Your task to perform on an android device: check google app version Image 0: 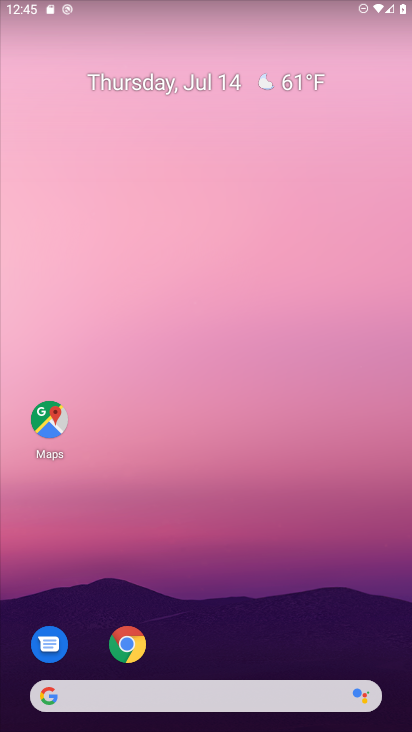
Step 0: drag from (292, 591) to (263, 80)
Your task to perform on an android device: check google app version Image 1: 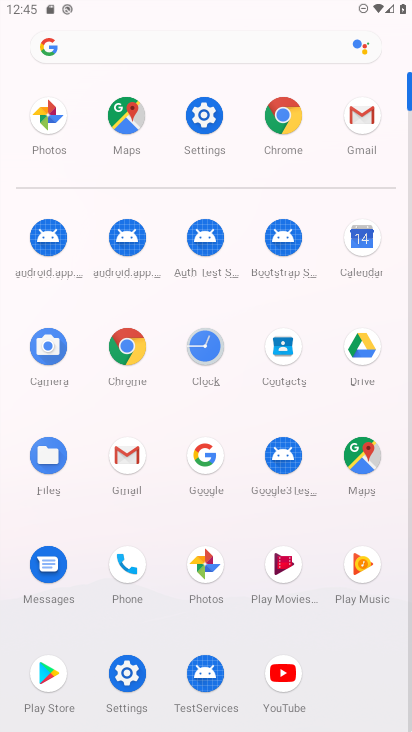
Step 1: click (202, 468)
Your task to perform on an android device: check google app version Image 2: 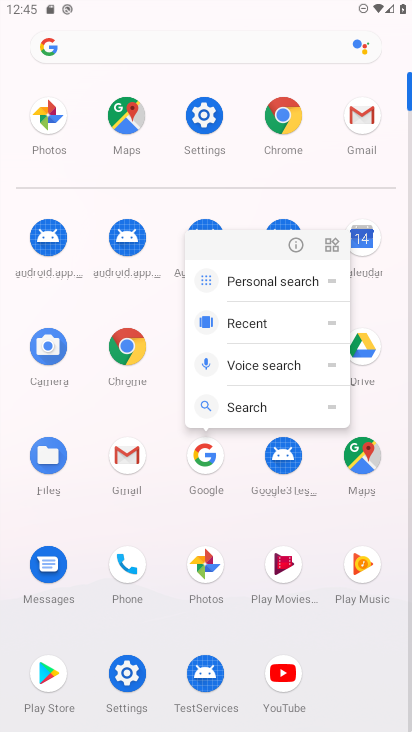
Step 2: click (295, 238)
Your task to perform on an android device: check google app version Image 3: 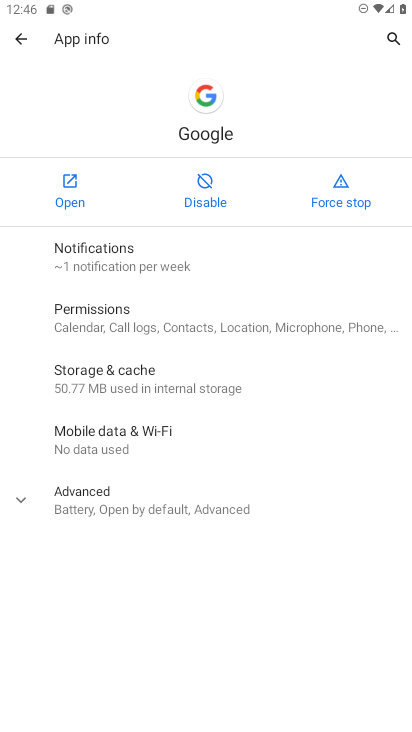
Step 3: click (89, 513)
Your task to perform on an android device: check google app version Image 4: 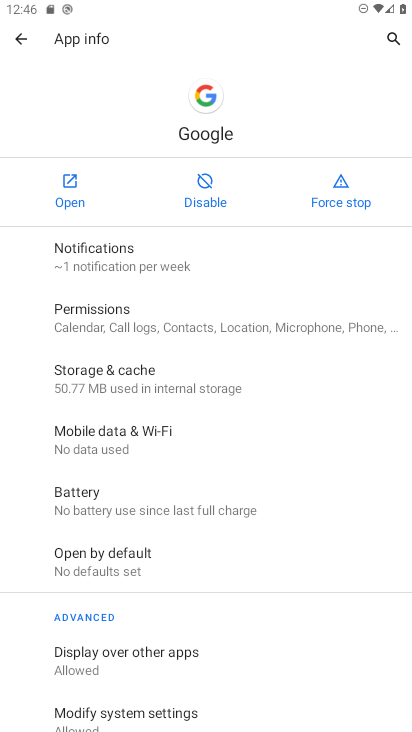
Step 4: task complete